Your task to perform on an android device: check the backup settings in the google photos Image 0: 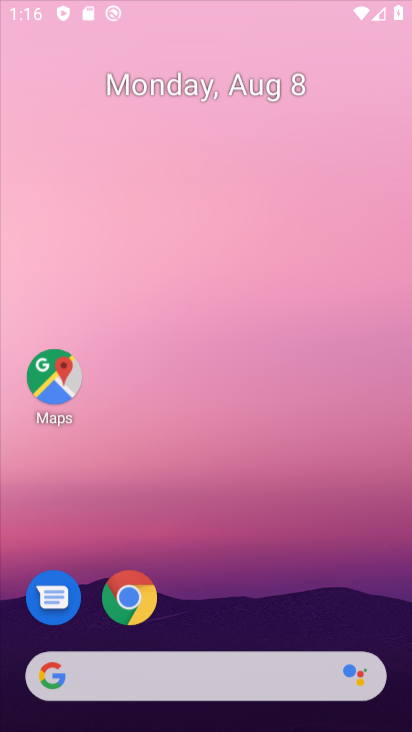
Step 0: press home button
Your task to perform on an android device: check the backup settings in the google photos Image 1: 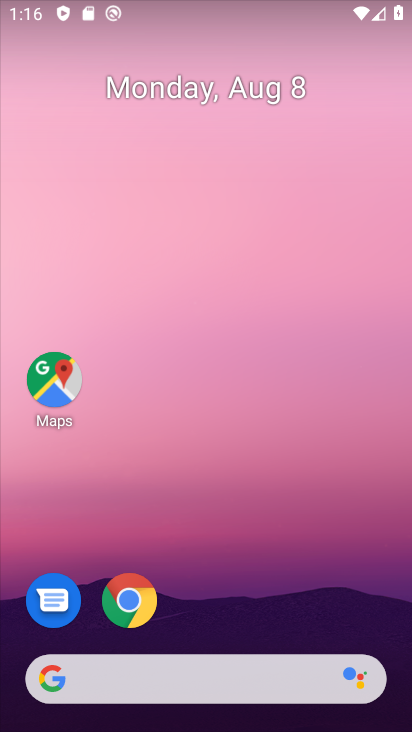
Step 1: drag from (325, 583) to (260, 17)
Your task to perform on an android device: check the backup settings in the google photos Image 2: 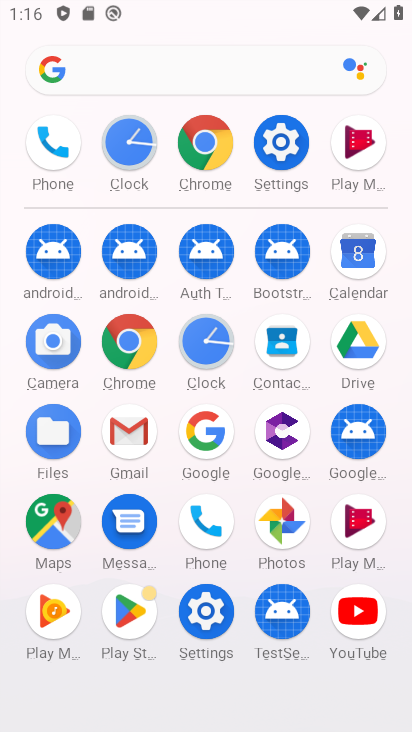
Step 2: click (284, 506)
Your task to perform on an android device: check the backup settings in the google photos Image 3: 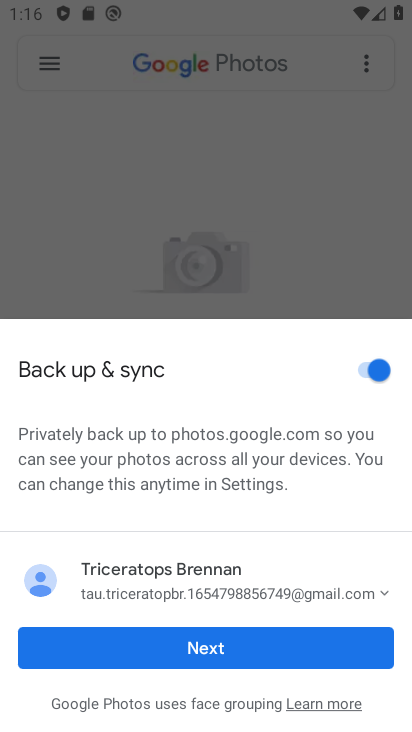
Step 3: click (297, 642)
Your task to perform on an android device: check the backup settings in the google photos Image 4: 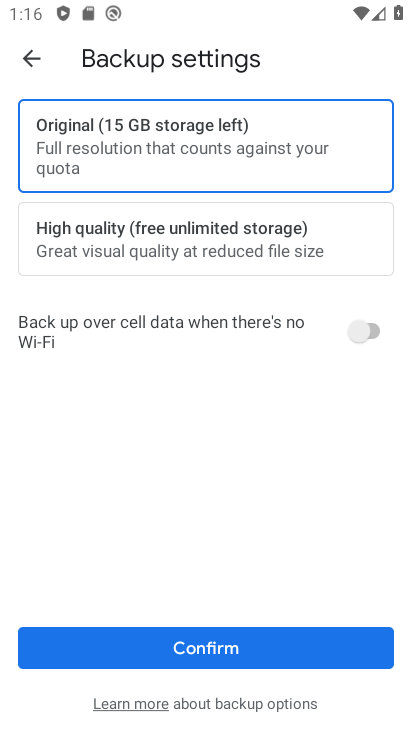
Step 4: click (25, 68)
Your task to perform on an android device: check the backup settings in the google photos Image 5: 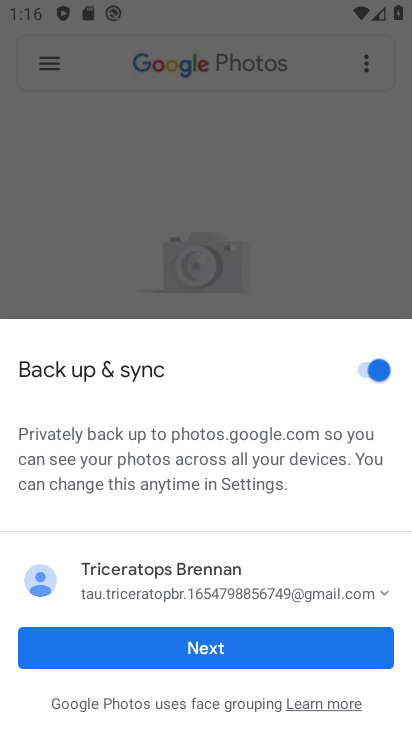
Step 5: click (51, 207)
Your task to perform on an android device: check the backup settings in the google photos Image 6: 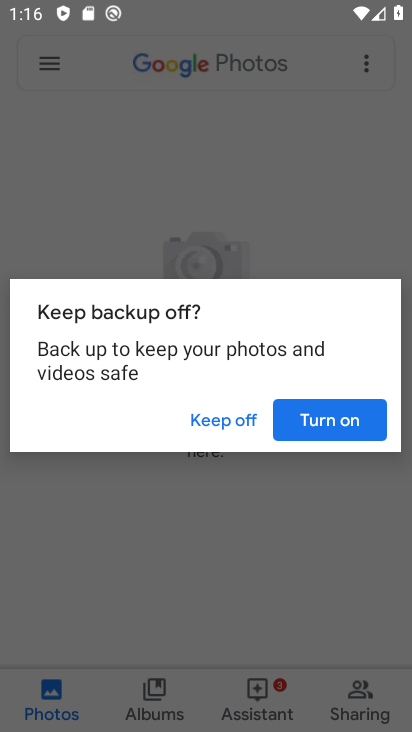
Step 6: click (204, 420)
Your task to perform on an android device: check the backup settings in the google photos Image 7: 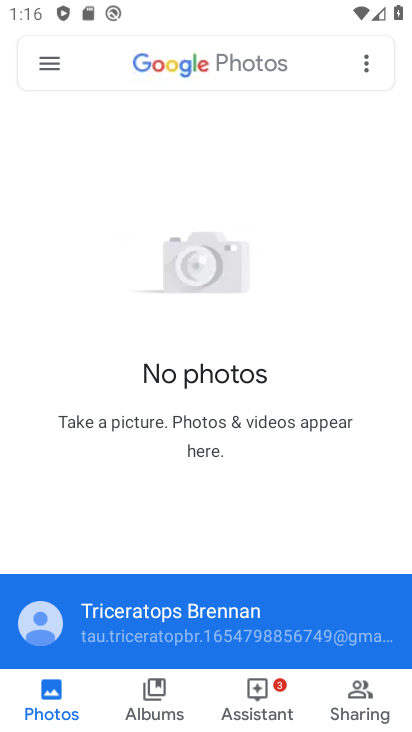
Step 7: click (358, 67)
Your task to perform on an android device: check the backup settings in the google photos Image 8: 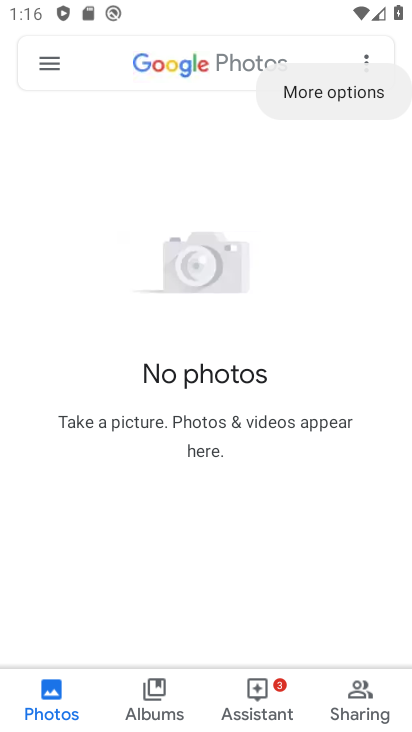
Step 8: click (365, 66)
Your task to perform on an android device: check the backup settings in the google photos Image 9: 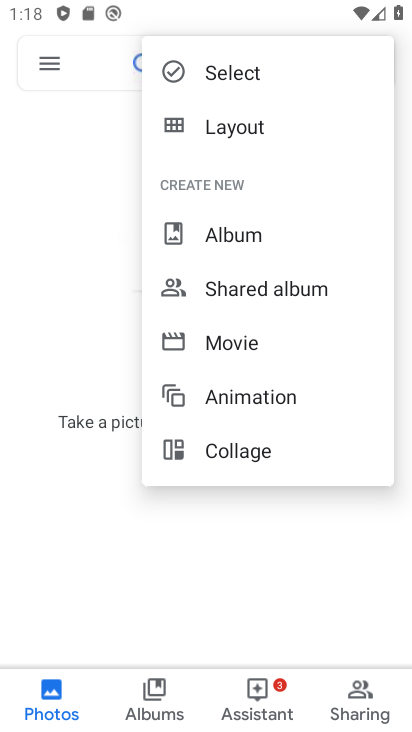
Step 9: click (98, 304)
Your task to perform on an android device: check the backup settings in the google photos Image 10: 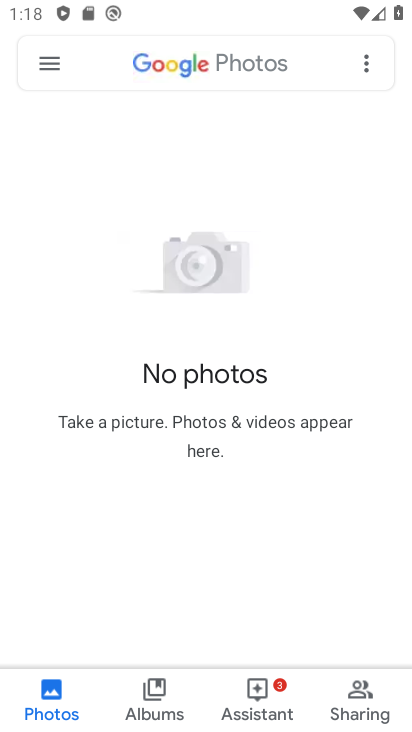
Step 10: click (43, 66)
Your task to perform on an android device: check the backup settings in the google photos Image 11: 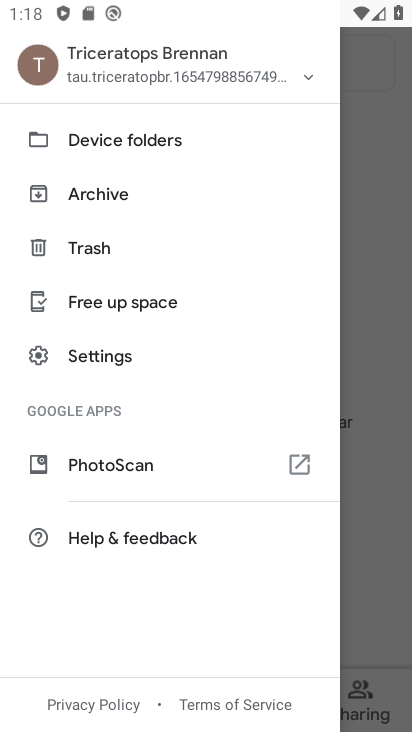
Step 11: click (103, 363)
Your task to perform on an android device: check the backup settings in the google photos Image 12: 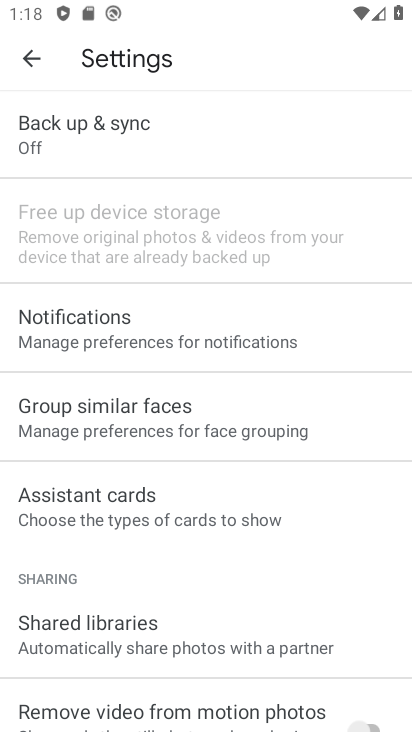
Step 12: click (86, 129)
Your task to perform on an android device: check the backup settings in the google photos Image 13: 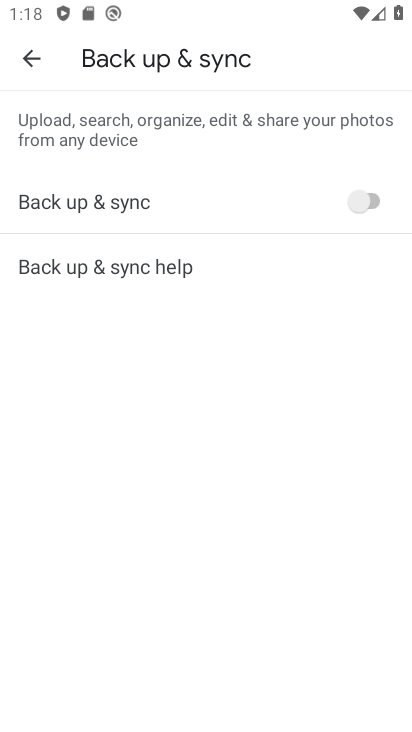
Step 13: task complete